Your task to perform on an android device: refresh tabs in the chrome app Image 0: 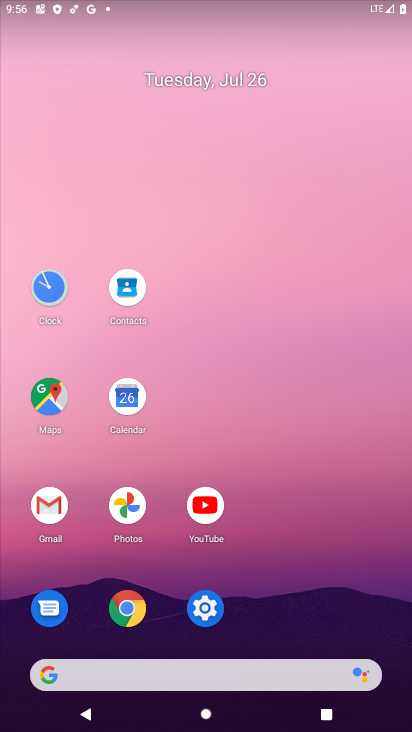
Step 0: click (131, 611)
Your task to perform on an android device: refresh tabs in the chrome app Image 1: 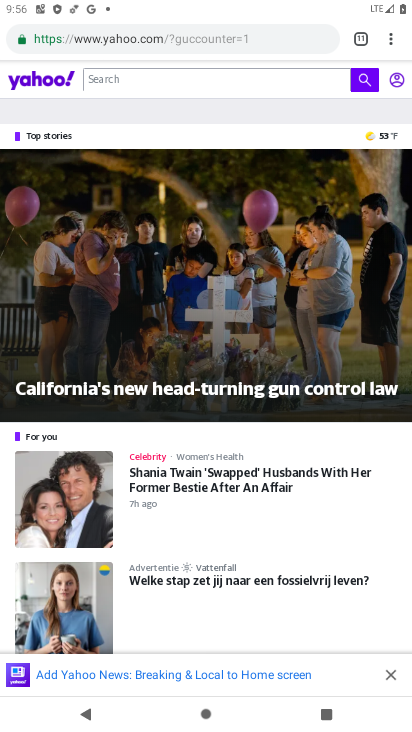
Step 1: click (391, 35)
Your task to perform on an android device: refresh tabs in the chrome app Image 2: 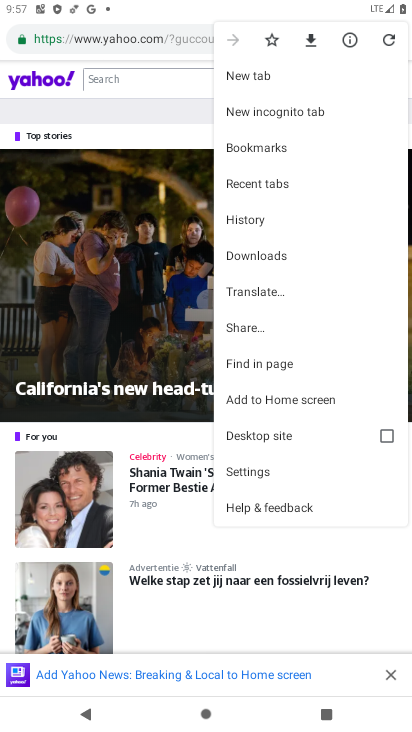
Step 2: click (389, 39)
Your task to perform on an android device: refresh tabs in the chrome app Image 3: 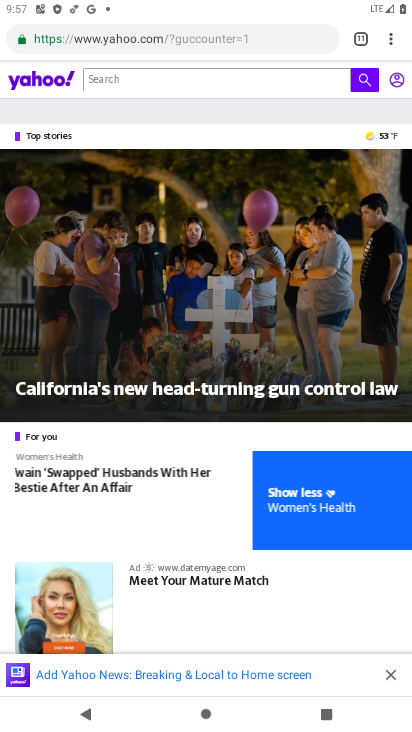
Step 3: task complete